Your task to perform on an android device: refresh tabs in the chrome app Image 0: 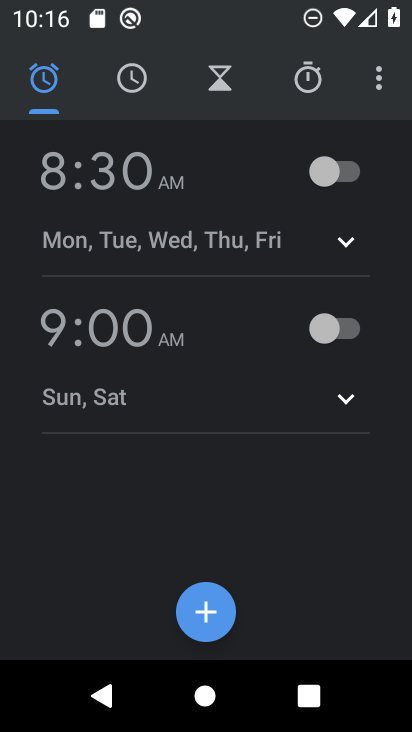
Step 0: press home button
Your task to perform on an android device: refresh tabs in the chrome app Image 1: 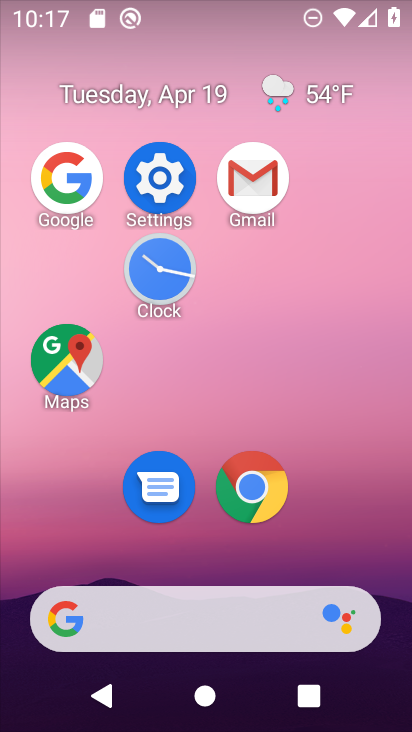
Step 1: click (266, 488)
Your task to perform on an android device: refresh tabs in the chrome app Image 2: 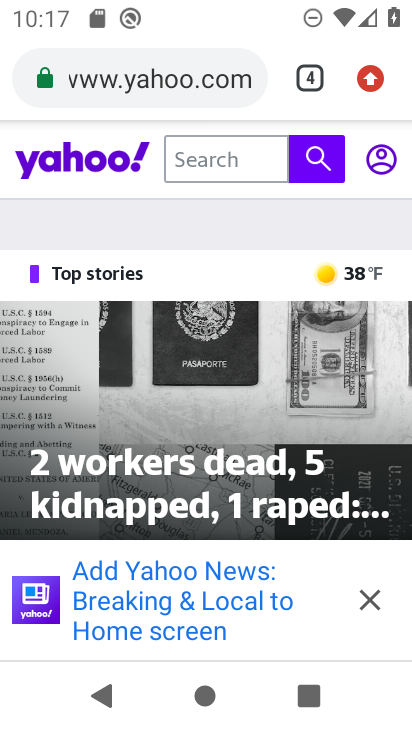
Step 2: click (318, 76)
Your task to perform on an android device: refresh tabs in the chrome app Image 3: 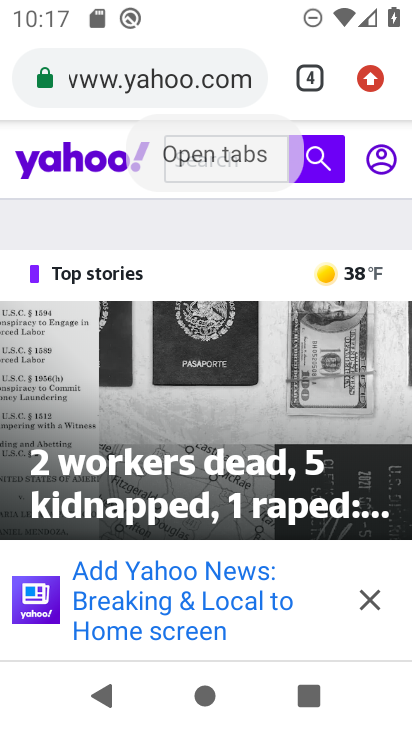
Step 3: click (314, 72)
Your task to perform on an android device: refresh tabs in the chrome app Image 4: 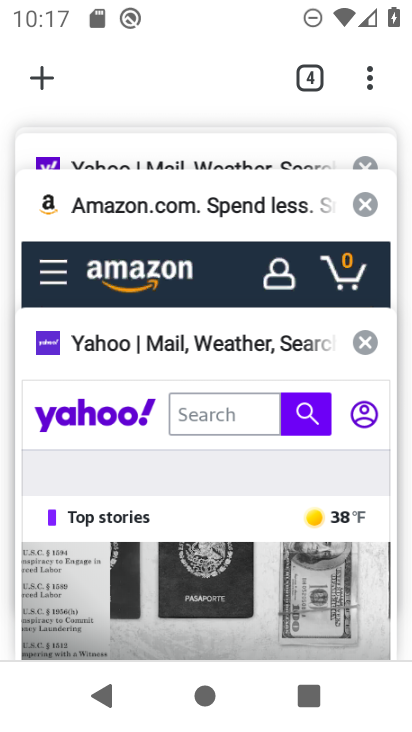
Step 4: click (320, 82)
Your task to perform on an android device: refresh tabs in the chrome app Image 5: 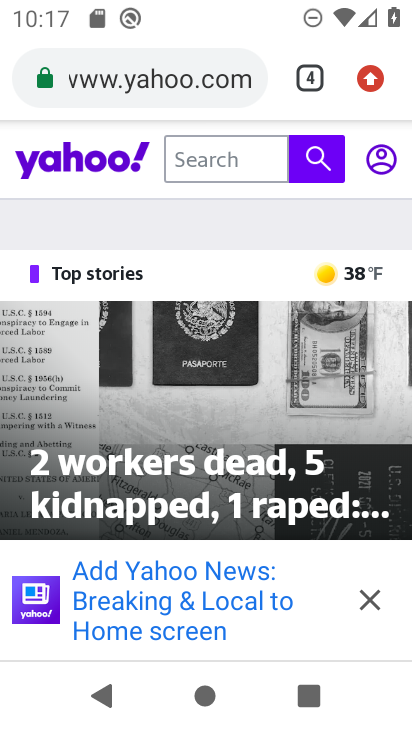
Step 5: click (313, 76)
Your task to perform on an android device: refresh tabs in the chrome app Image 6: 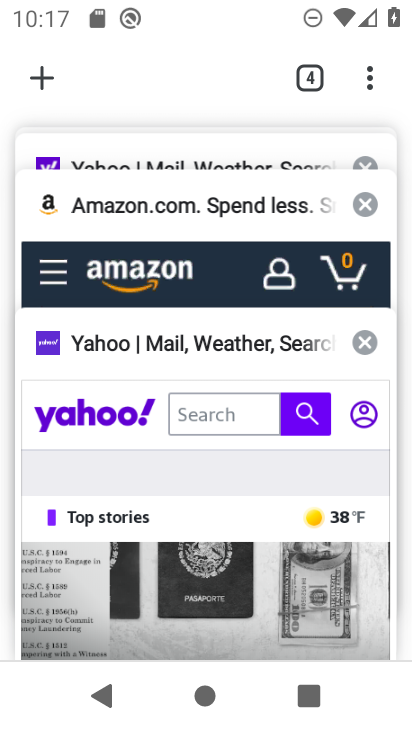
Step 6: click (313, 76)
Your task to perform on an android device: refresh tabs in the chrome app Image 7: 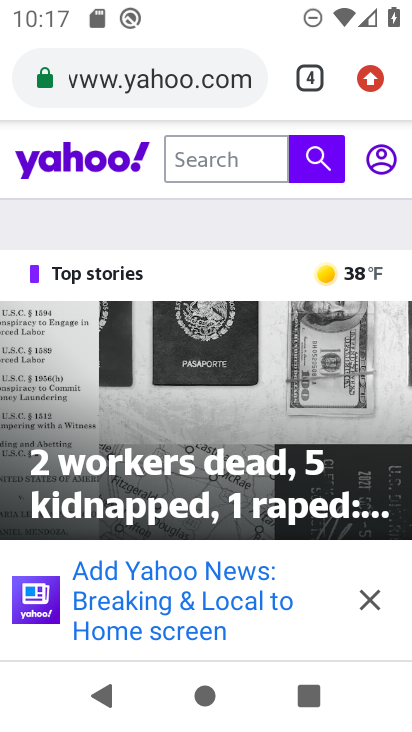
Step 7: click (359, 79)
Your task to perform on an android device: refresh tabs in the chrome app Image 8: 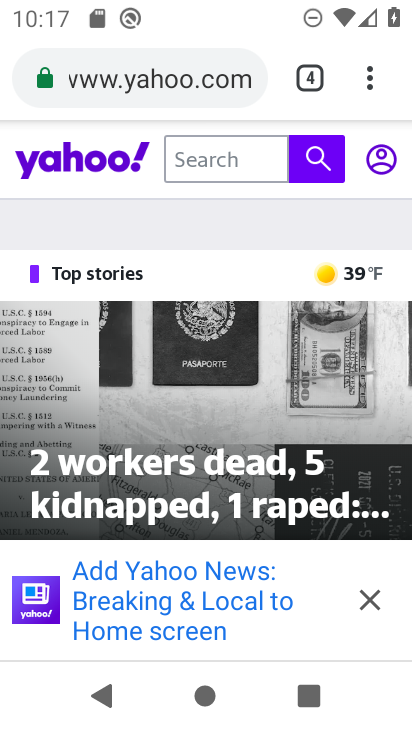
Step 8: click (368, 75)
Your task to perform on an android device: refresh tabs in the chrome app Image 9: 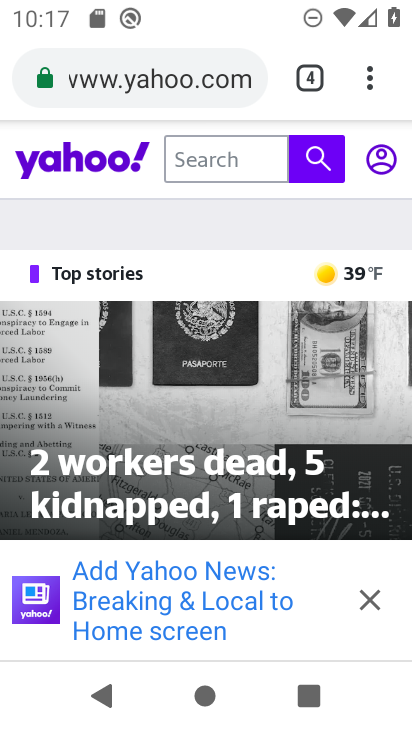
Step 9: click (368, 75)
Your task to perform on an android device: refresh tabs in the chrome app Image 10: 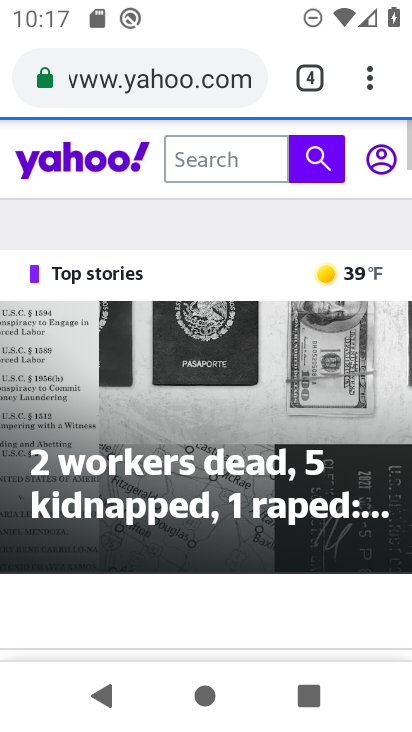
Step 10: click (368, 75)
Your task to perform on an android device: refresh tabs in the chrome app Image 11: 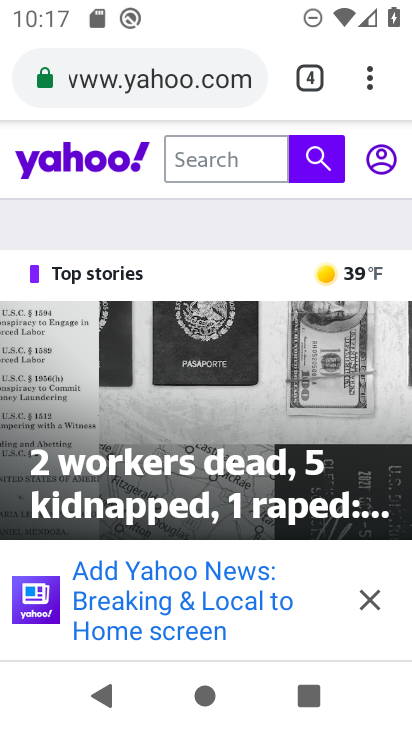
Step 11: click (371, 71)
Your task to perform on an android device: refresh tabs in the chrome app Image 12: 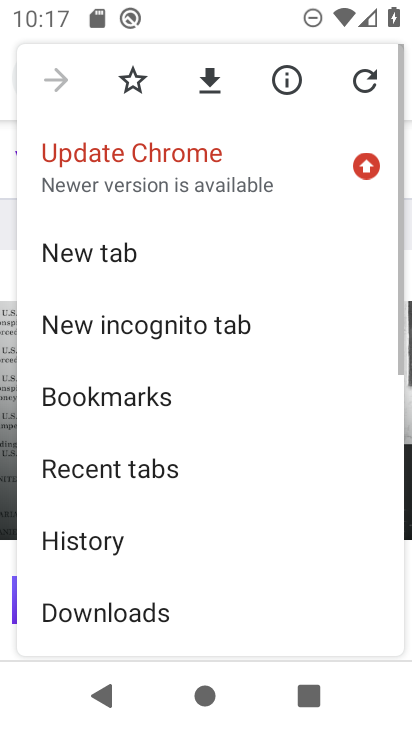
Step 12: click (371, 71)
Your task to perform on an android device: refresh tabs in the chrome app Image 13: 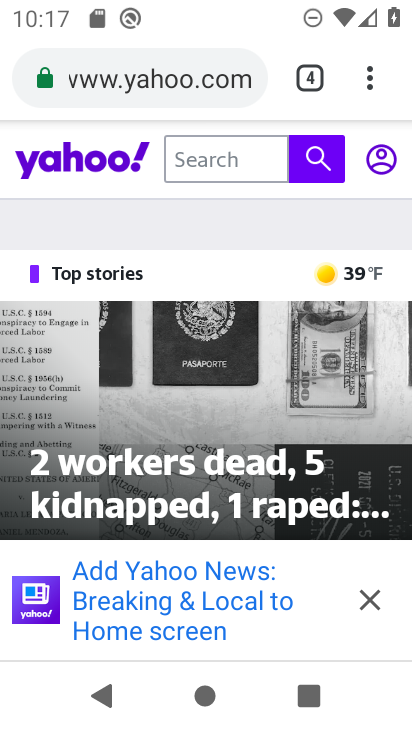
Step 13: task complete